Your task to perform on an android device: see creations saved in the google photos Image 0: 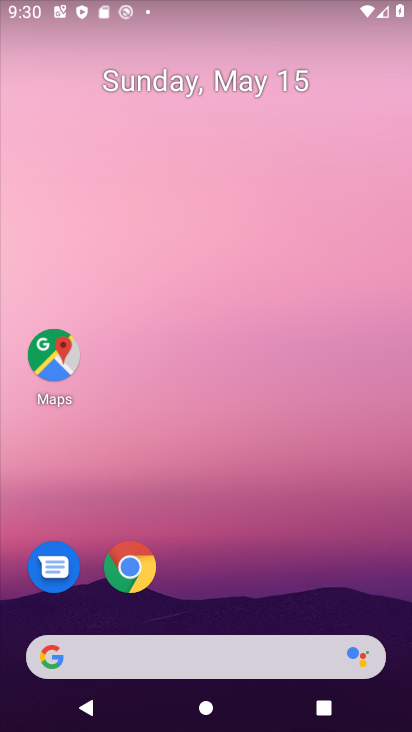
Step 0: drag from (226, 595) to (198, 177)
Your task to perform on an android device: see creations saved in the google photos Image 1: 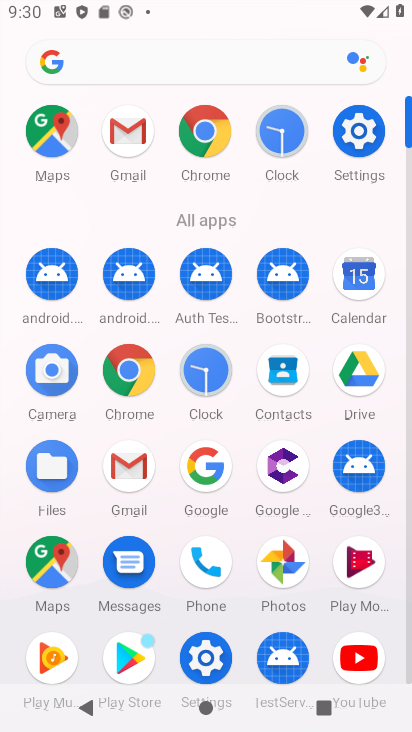
Step 1: click (269, 559)
Your task to perform on an android device: see creations saved in the google photos Image 2: 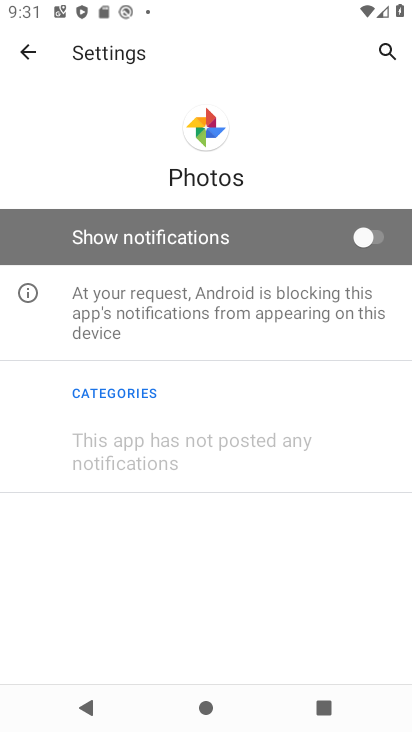
Step 2: click (33, 56)
Your task to perform on an android device: see creations saved in the google photos Image 3: 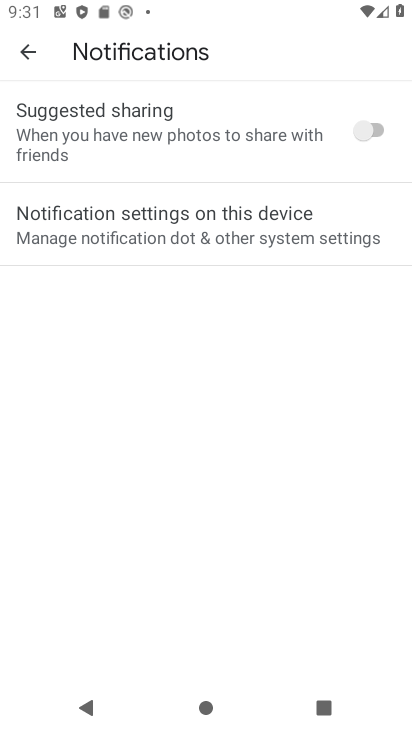
Step 3: click (21, 51)
Your task to perform on an android device: see creations saved in the google photos Image 4: 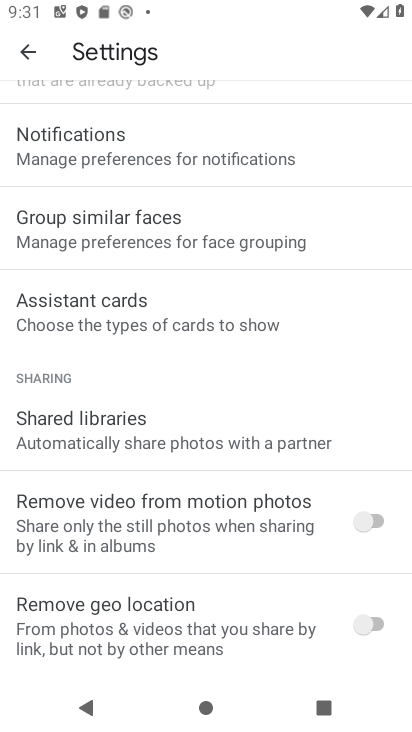
Step 4: click (38, 57)
Your task to perform on an android device: see creations saved in the google photos Image 5: 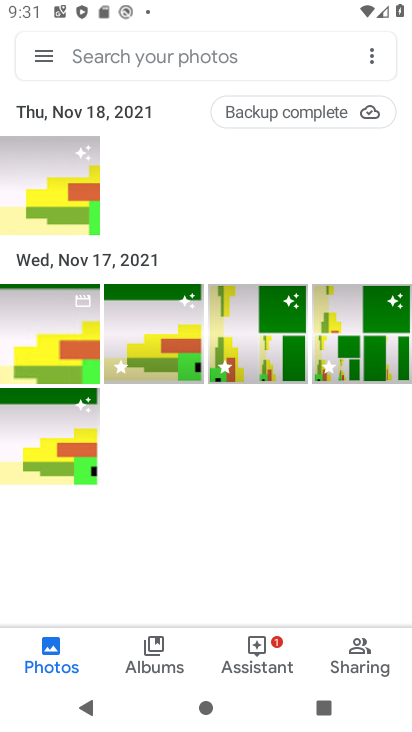
Step 5: click (154, 52)
Your task to perform on an android device: see creations saved in the google photos Image 6: 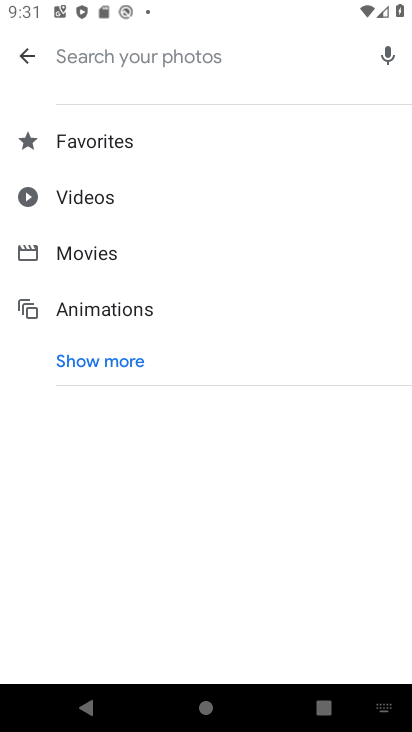
Step 6: click (124, 366)
Your task to perform on an android device: see creations saved in the google photos Image 7: 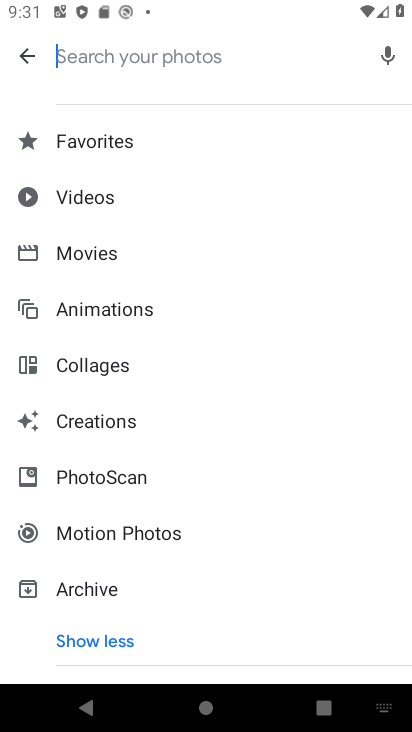
Step 7: click (119, 432)
Your task to perform on an android device: see creations saved in the google photos Image 8: 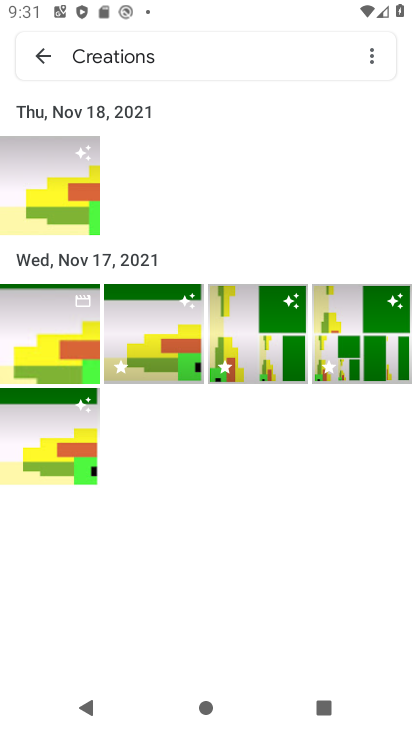
Step 8: task complete